Your task to perform on an android device: Play the last video I watched on Youtube Image 0: 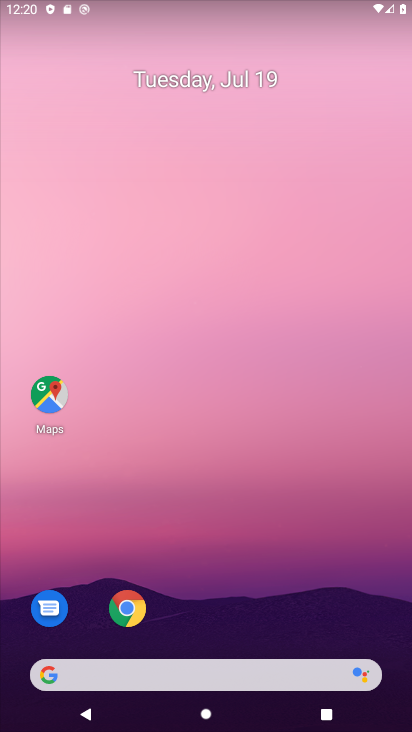
Step 0: drag from (308, 525) to (319, 182)
Your task to perform on an android device: Play the last video I watched on Youtube Image 1: 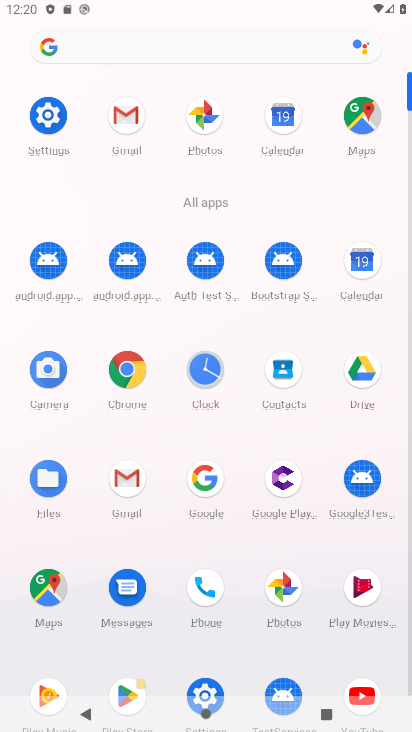
Step 1: click (359, 684)
Your task to perform on an android device: Play the last video I watched on Youtube Image 2: 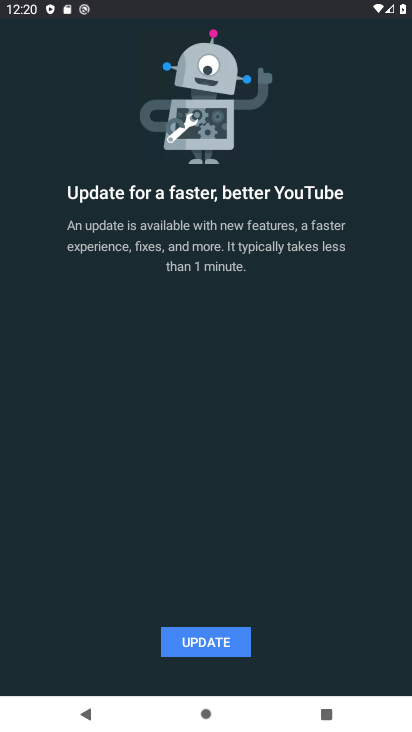
Step 2: task complete